Your task to perform on an android device: Is it going to rain tomorrow? Image 0: 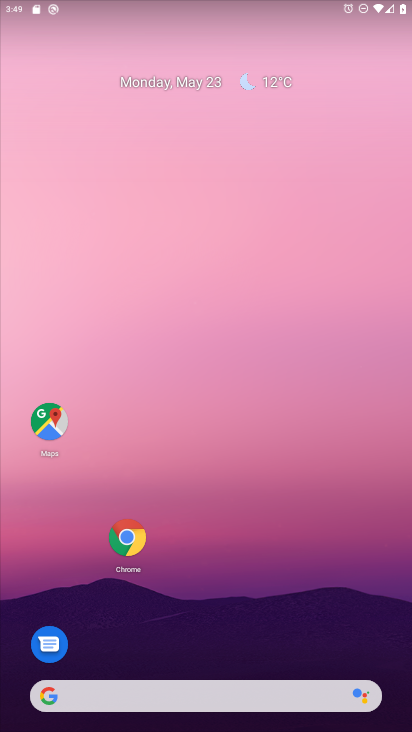
Step 0: drag from (304, 598) to (310, 163)
Your task to perform on an android device: Is it going to rain tomorrow? Image 1: 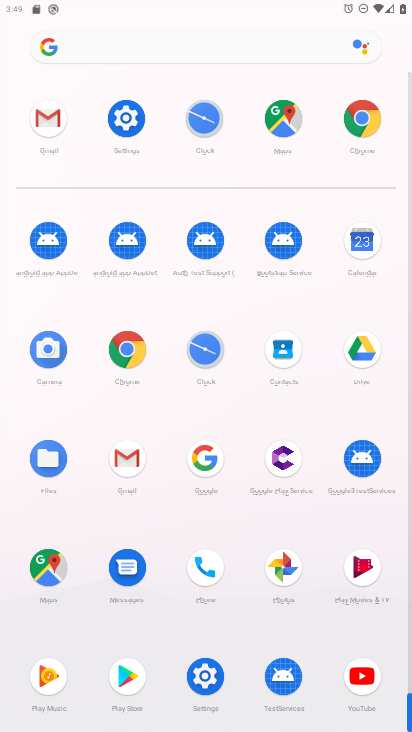
Step 1: press home button
Your task to perform on an android device: Is it going to rain tomorrow? Image 2: 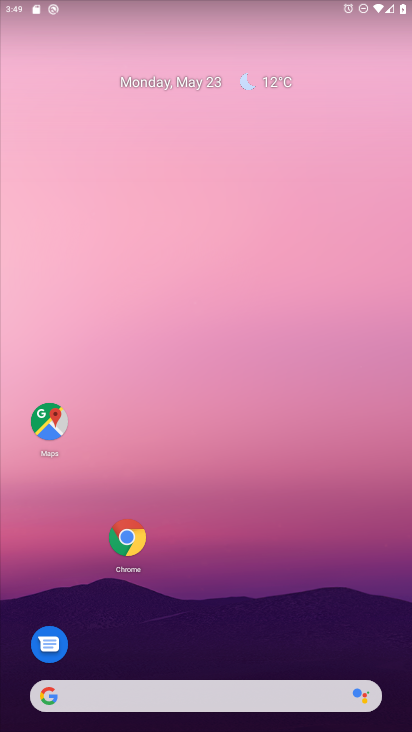
Step 2: click (276, 90)
Your task to perform on an android device: Is it going to rain tomorrow? Image 3: 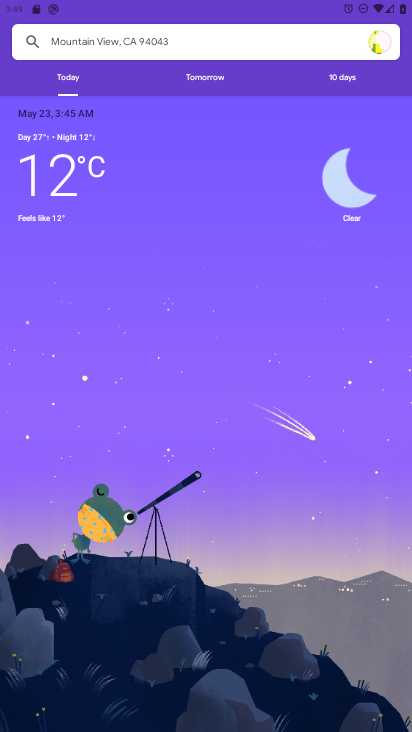
Step 3: click (222, 81)
Your task to perform on an android device: Is it going to rain tomorrow? Image 4: 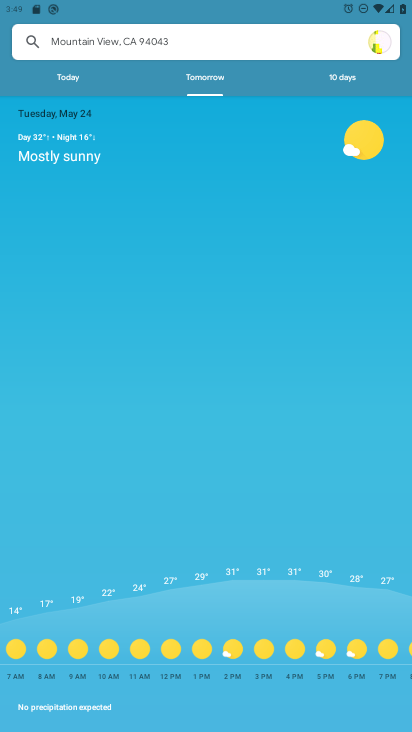
Step 4: task complete